Your task to perform on an android device: Go to privacy settings Image 0: 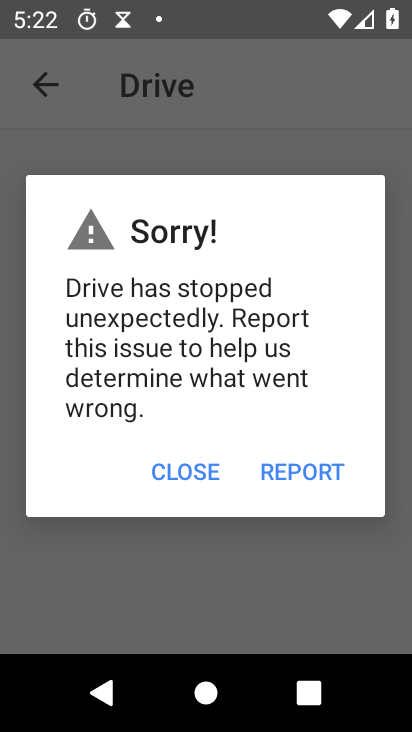
Step 0: press home button
Your task to perform on an android device: Go to privacy settings Image 1: 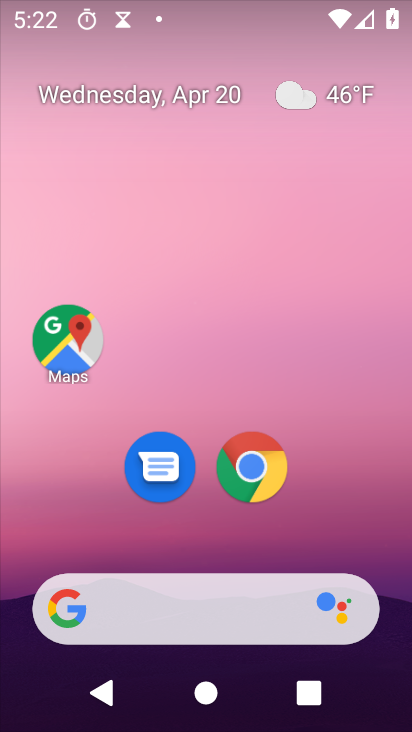
Step 1: drag from (222, 531) to (228, 44)
Your task to perform on an android device: Go to privacy settings Image 2: 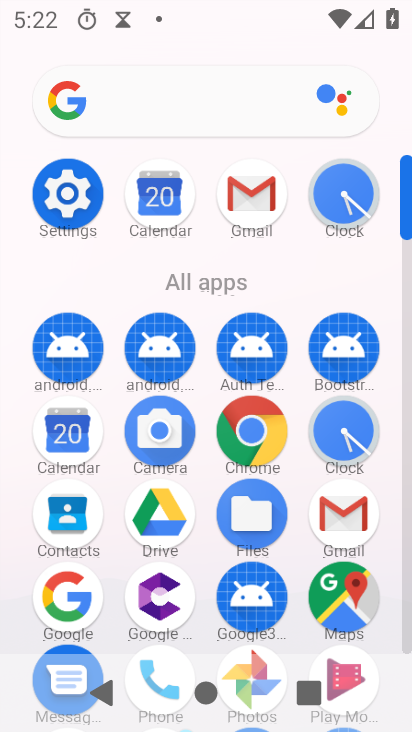
Step 2: click (70, 211)
Your task to perform on an android device: Go to privacy settings Image 3: 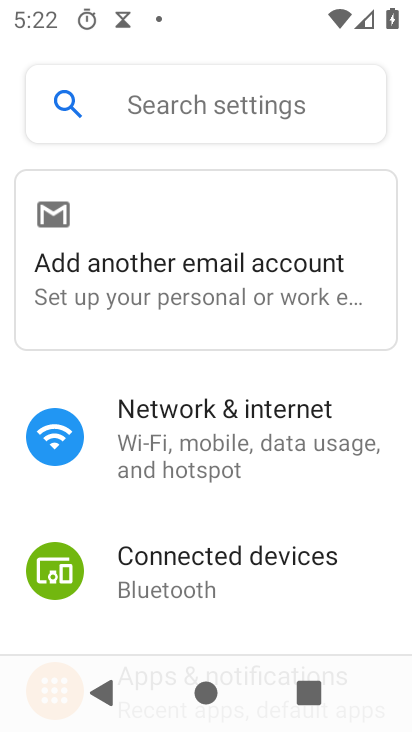
Step 3: drag from (205, 562) to (278, 95)
Your task to perform on an android device: Go to privacy settings Image 4: 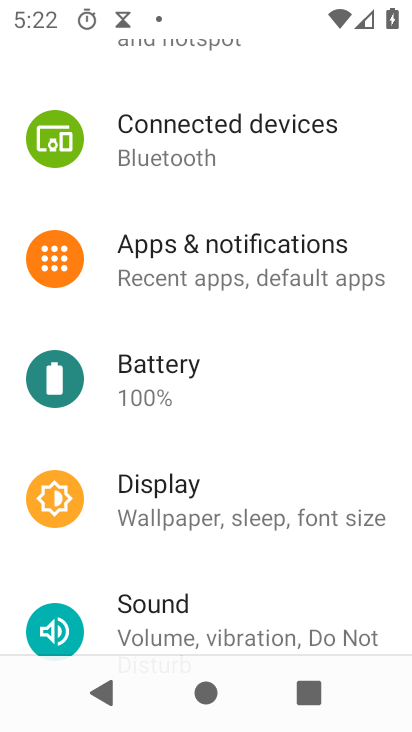
Step 4: drag from (180, 555) to (246, 184)
Your task to perform on an android device: Go to privacy settings Image 5: 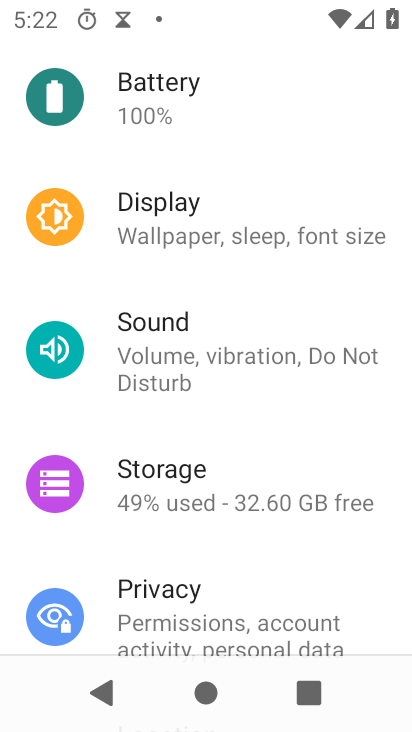
Step 5: click (192, 605)
Your task to perform on an android device: Go to privacy settings Image 6: 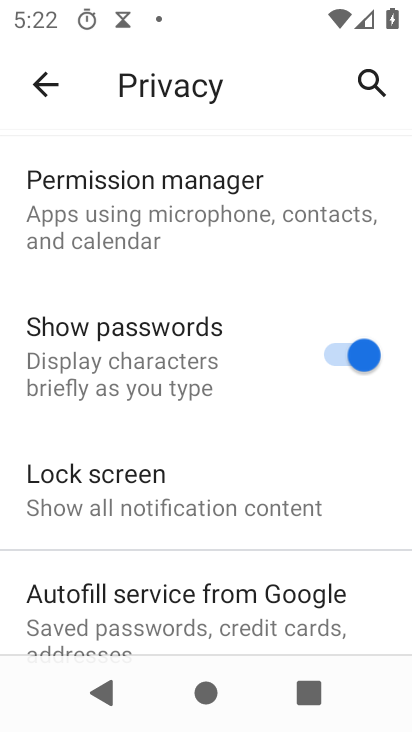
Step 6: task complete